Your task to perform on an android device: Show me popular videos on Youtube Image 0: 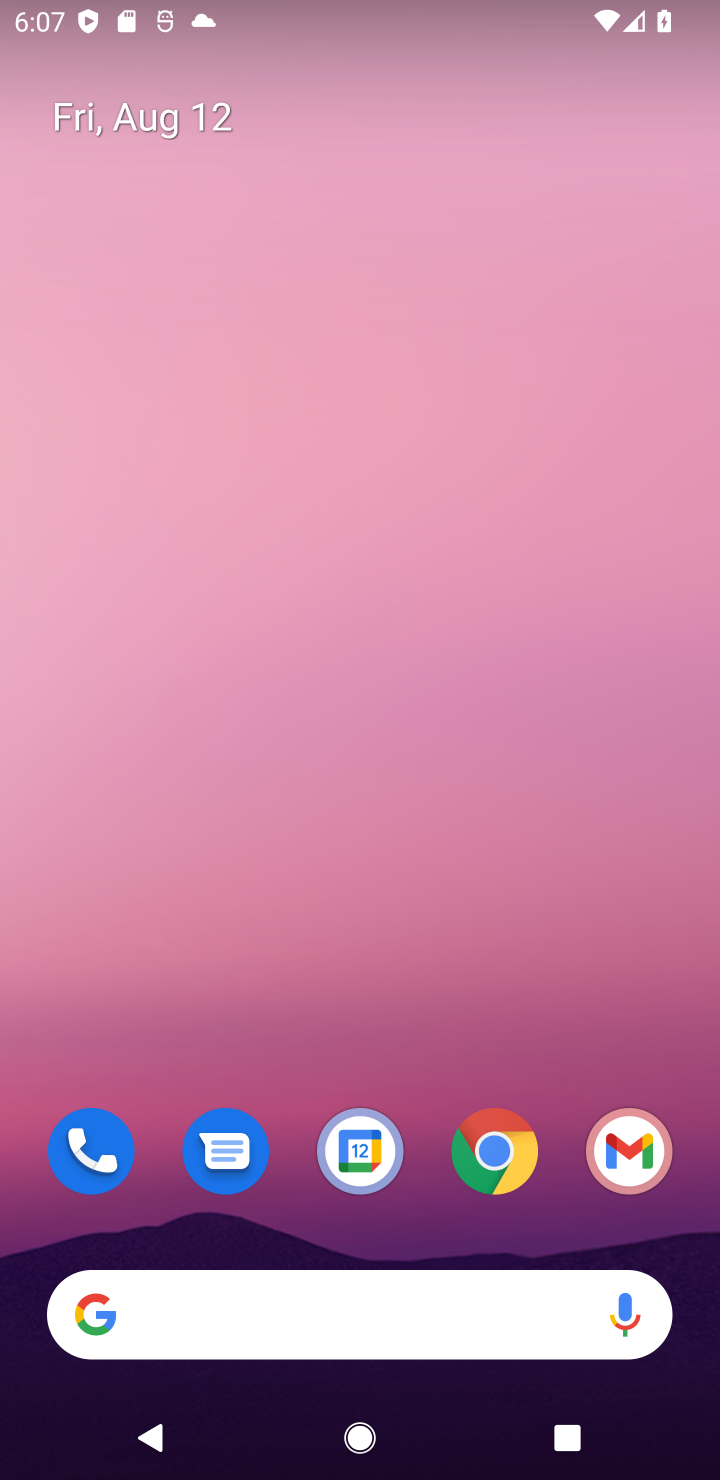
Step 0: drag from (364, 807) to (516, 228)
Your task to perform on an android device: Show me popular videos on Youtube Image 1: 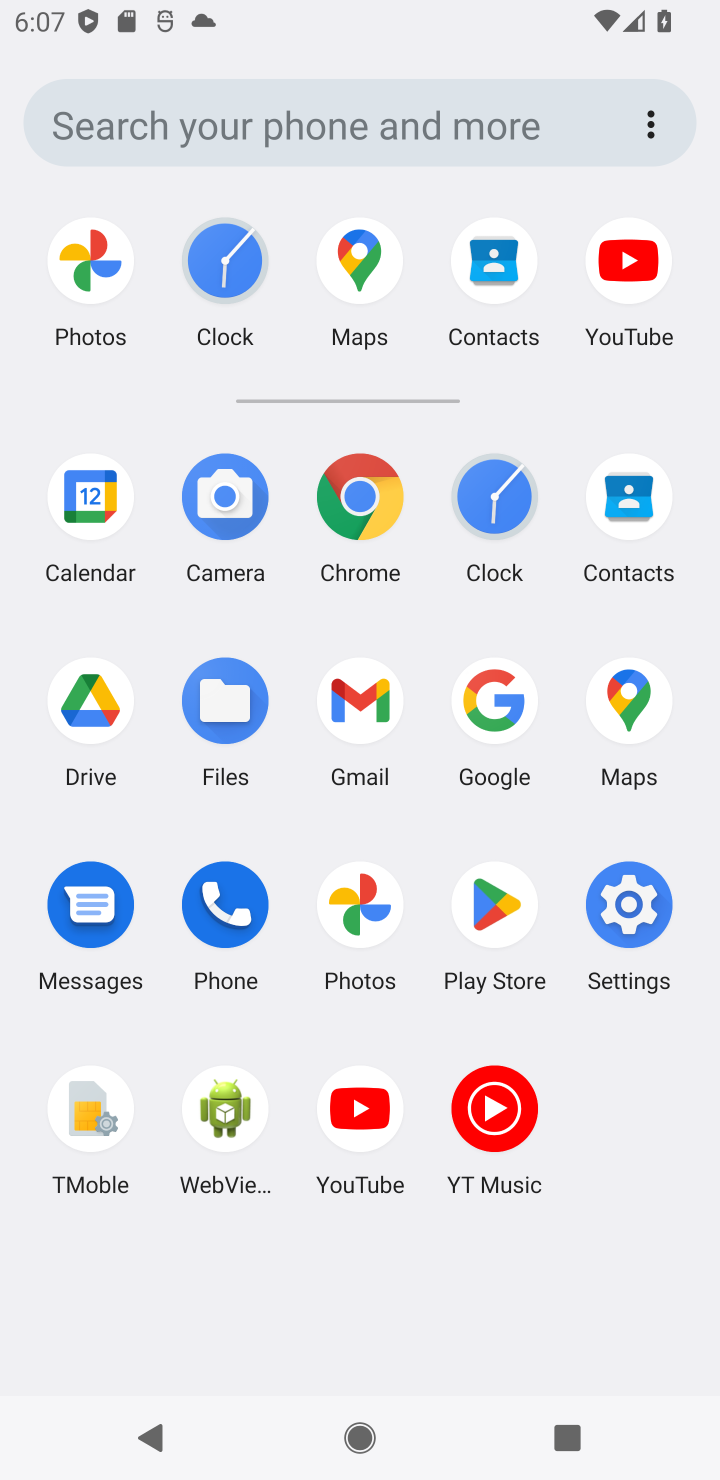
Step 1: click (540, 364)
Your task to perform on an android device: Show me popular videos on Youtube Image 2: 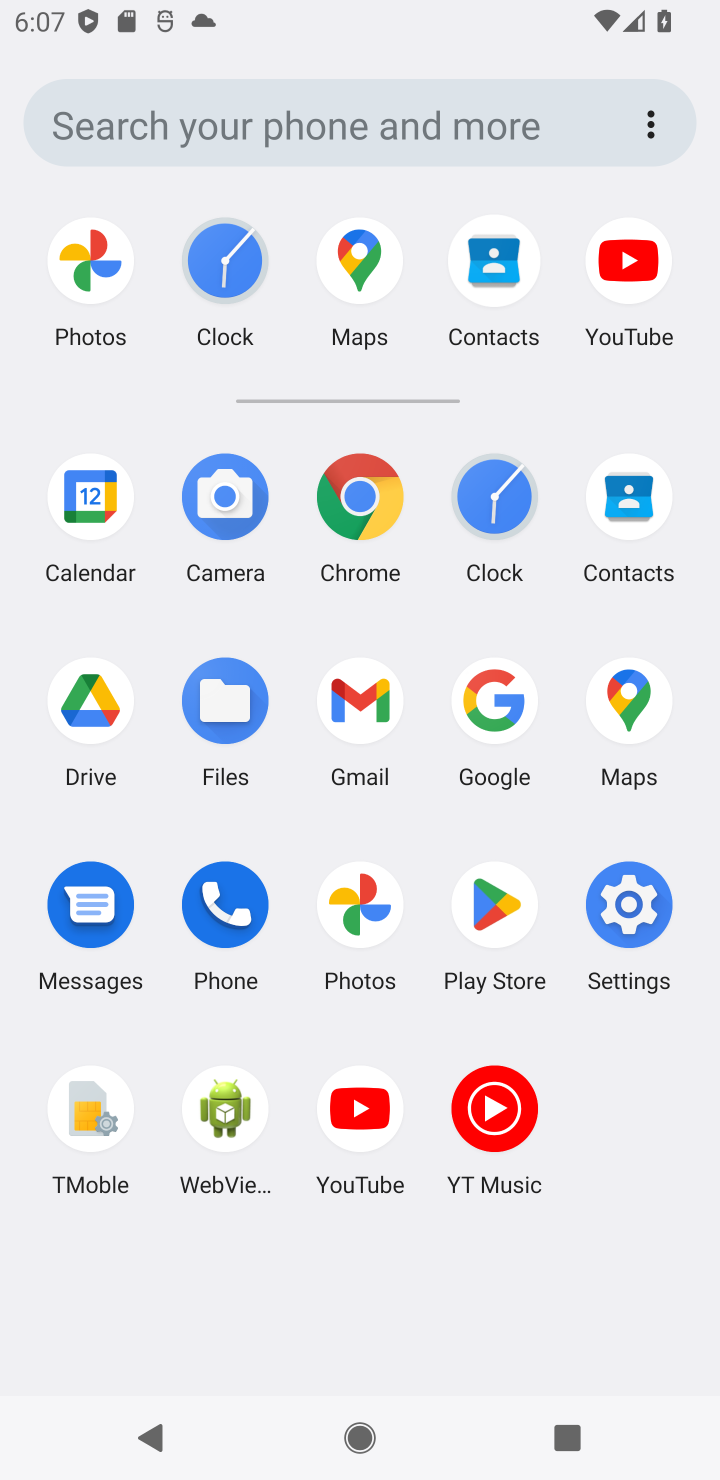
Step 2: click (540, 364)
Your task to perform on an android device: Show me popular videos on Youtube Image 3: 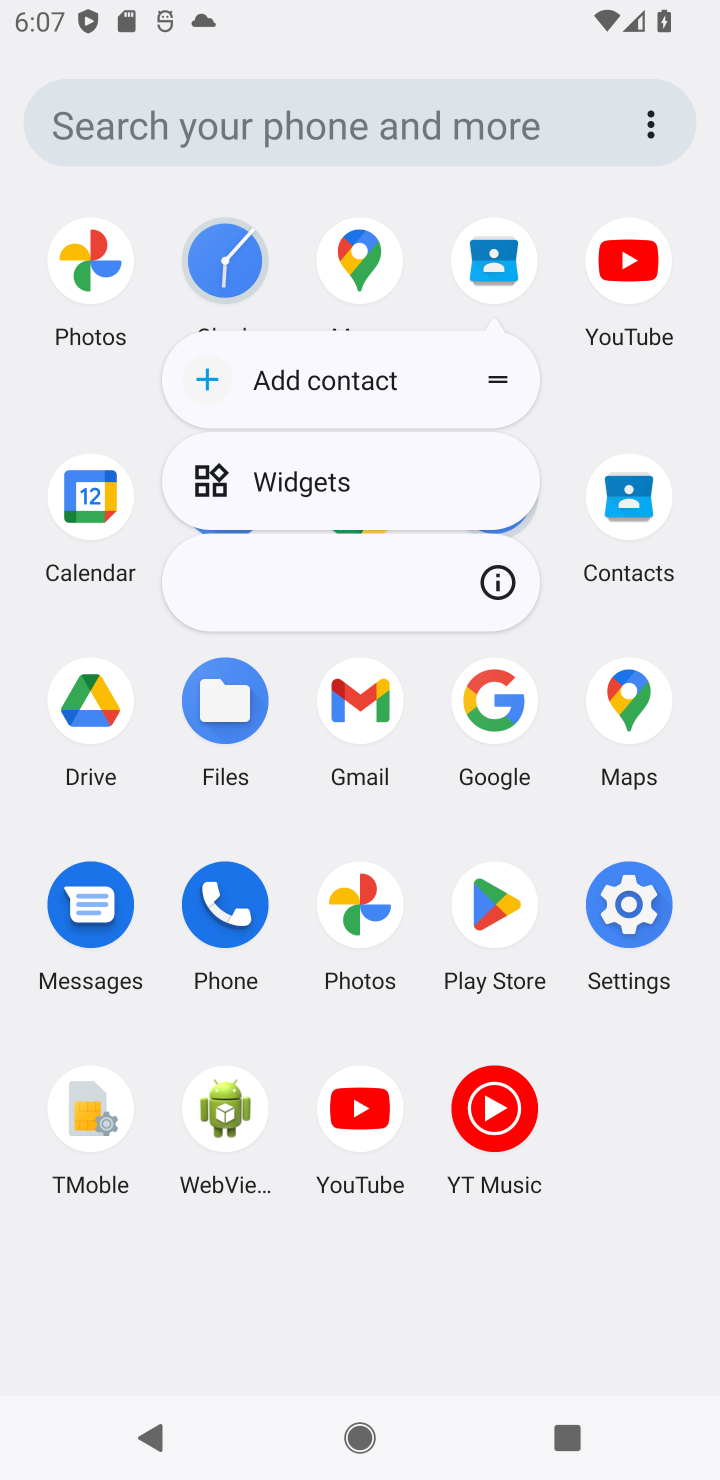
Step 3: click (359, 1095)
Your task to perform on an android device: Show me popular videos on Youtube Image 4: 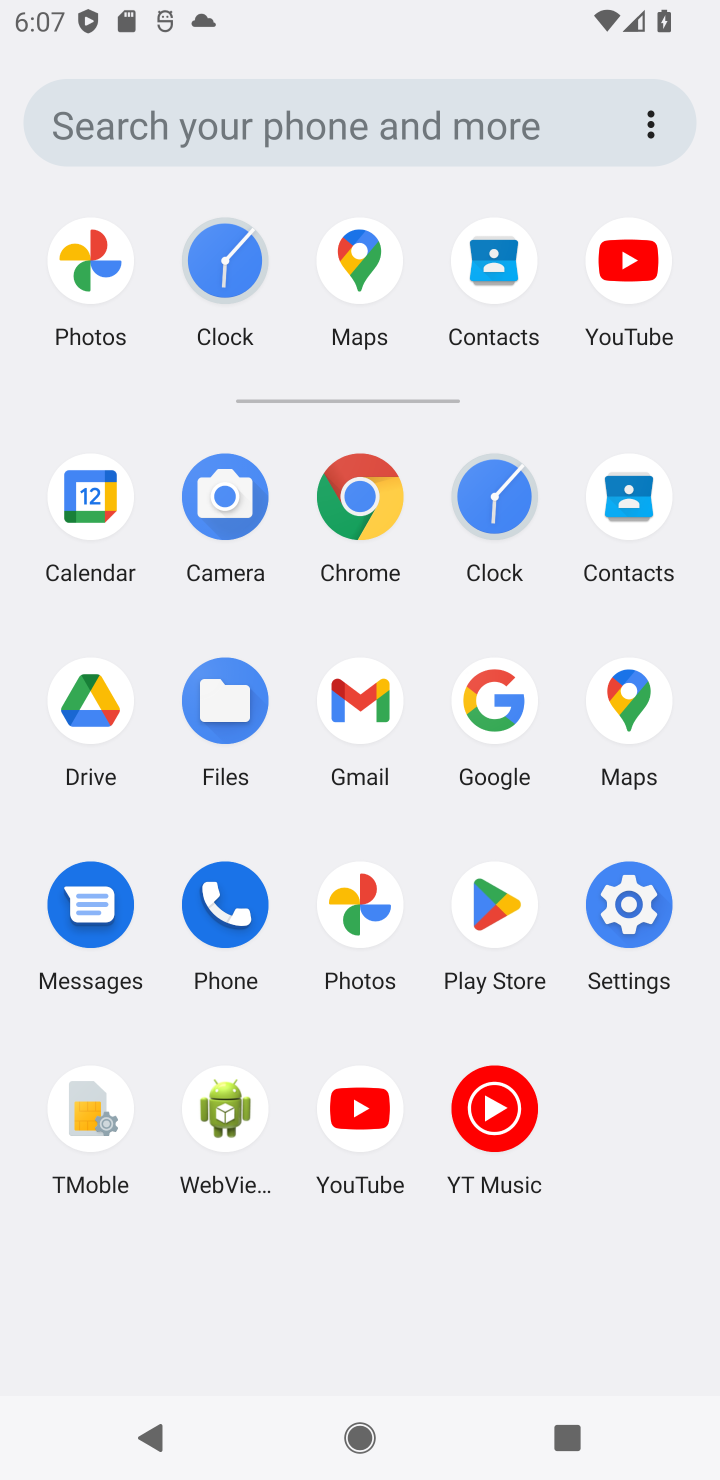
Step 4: click (359, 1102)
Your task to perform on an android device: Show me popular videos on Youtube Image 5: 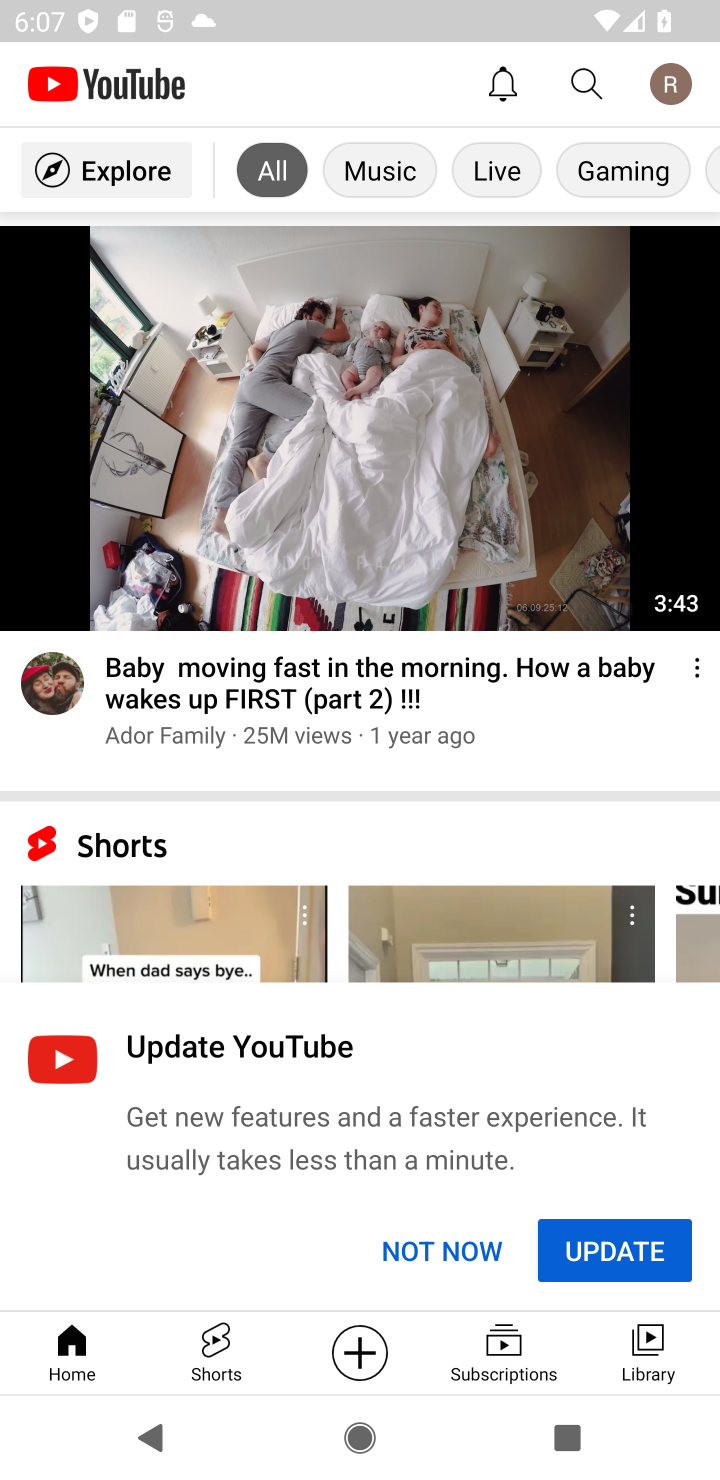
Step 5: click (135, 162)
Your task to perform on an android device: Show me popular videos on Youtube Image 6: 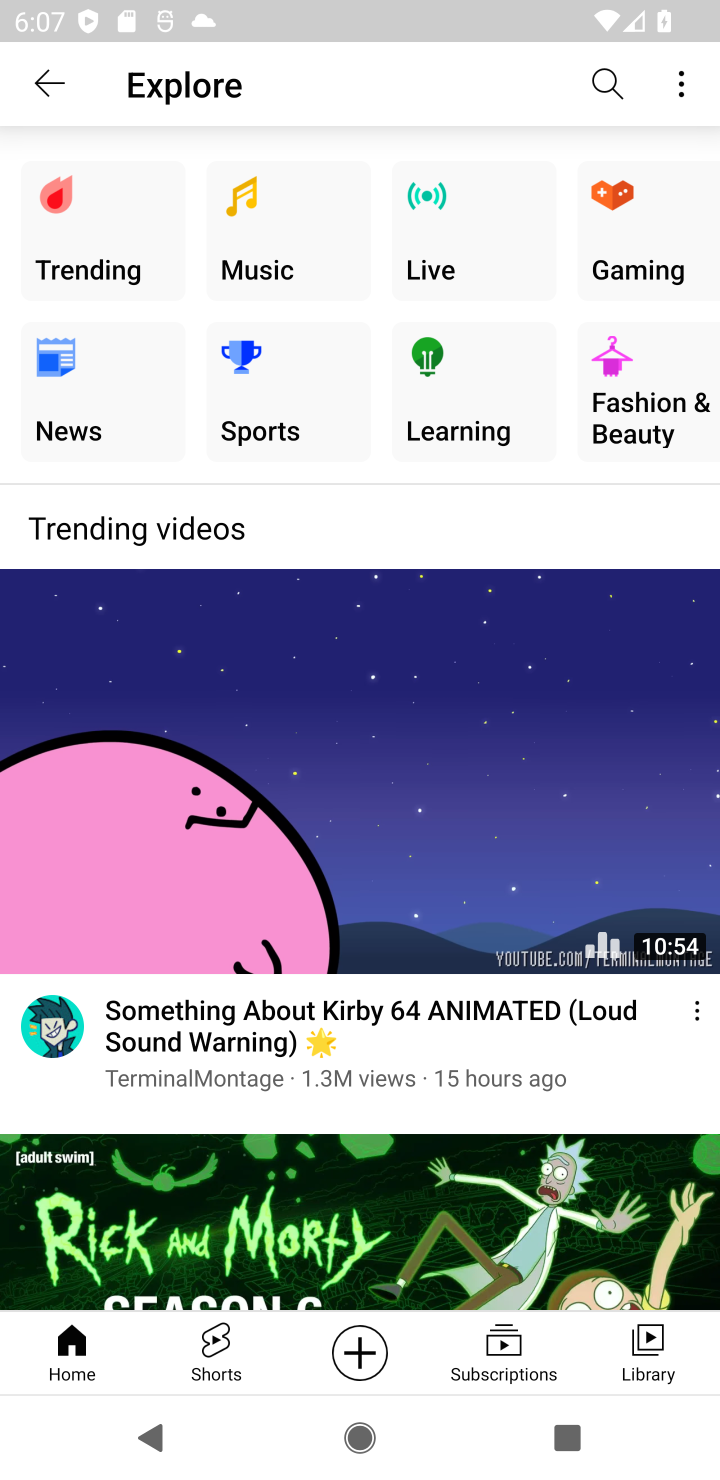
Step 6: task complete